Your task to perform on an android device: open chrome privacy settings Image 0: 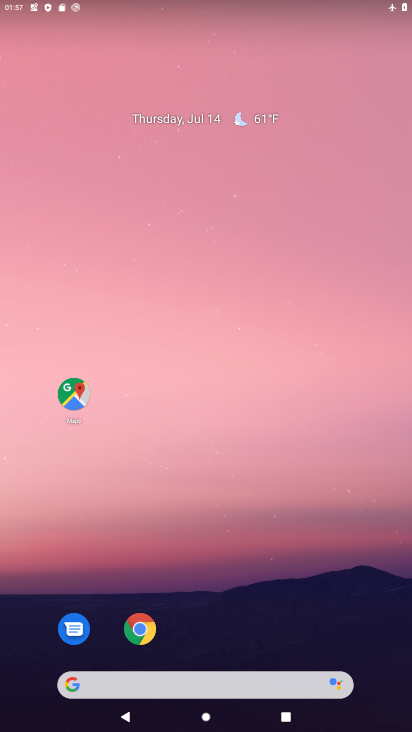
Step 0: click (142, 622)
Your task to perform on an android device: open chrome privacy settings Image 1: 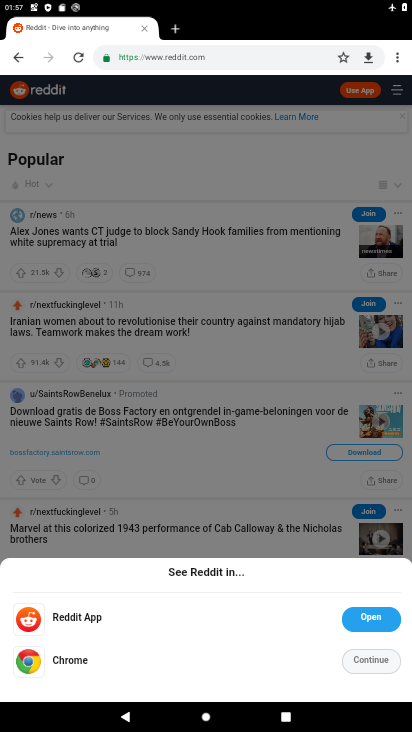
Step 1: click (362, 658)
Your task to perform on an android device: open chrome privacy settings Image 2: 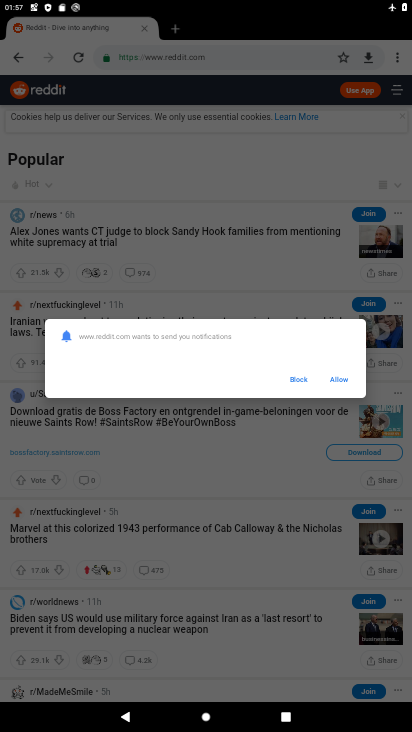
Step 2: click (340, 377)
Your task to perform on an android device: open chrome privacy settings Image 3: 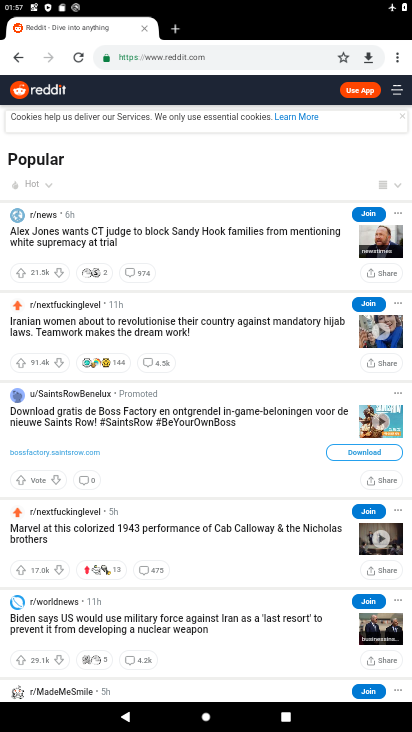
Step 3: click (398, 60)
Your task to perform on an android device: open chrome privacy settings Image 4: 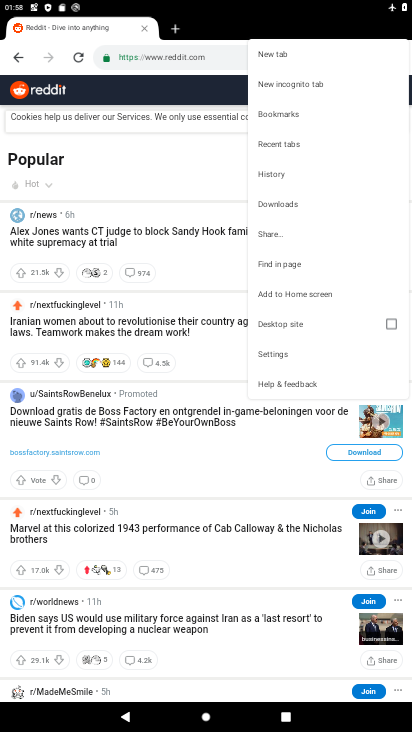
Step 4: click (290, 352)
Your task to perform on an android device: open chrome privacy settings Image 5: 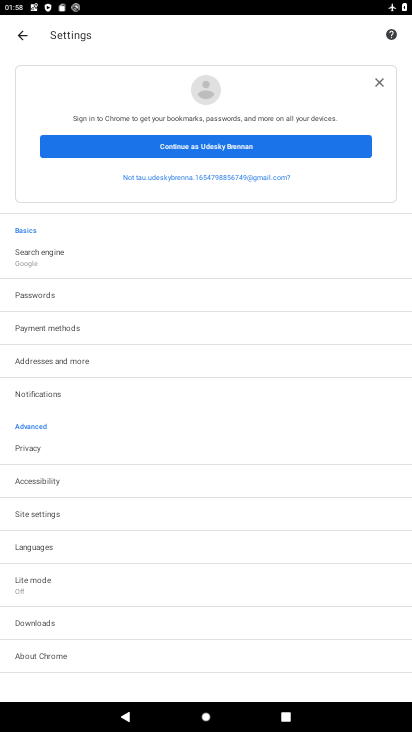
Step 5: click (64, 449)
Your task to perform on an android device: open chrome privacy settings Image 6: 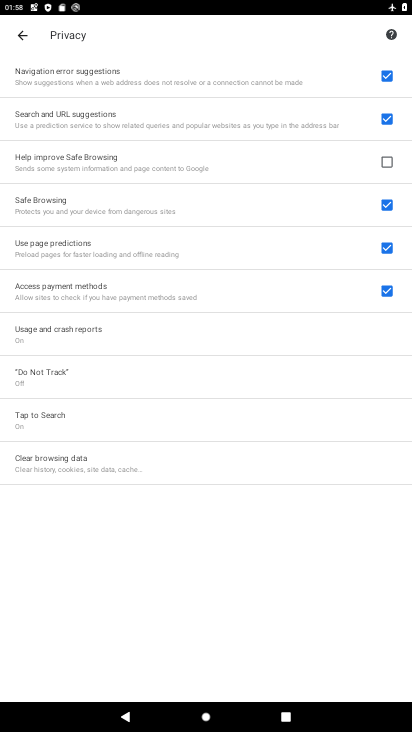
Step 6: task complete